Your task to perform on an android device: turn off notifications settings in the gmail app Image 0: 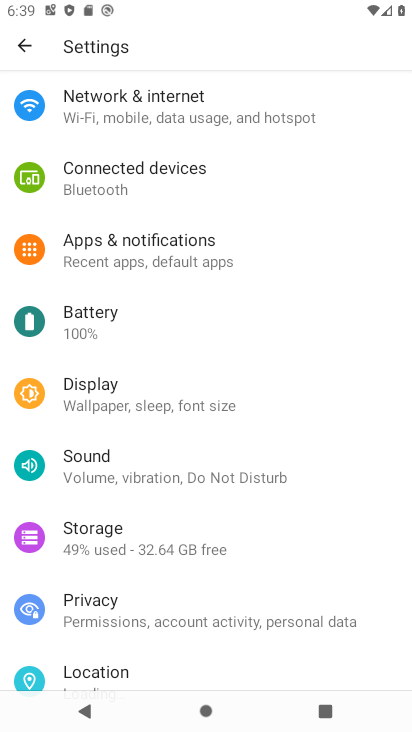
Step 0: press home button
Your task to perform on an android device: turn off notifications settings in the gmail app Image 1: 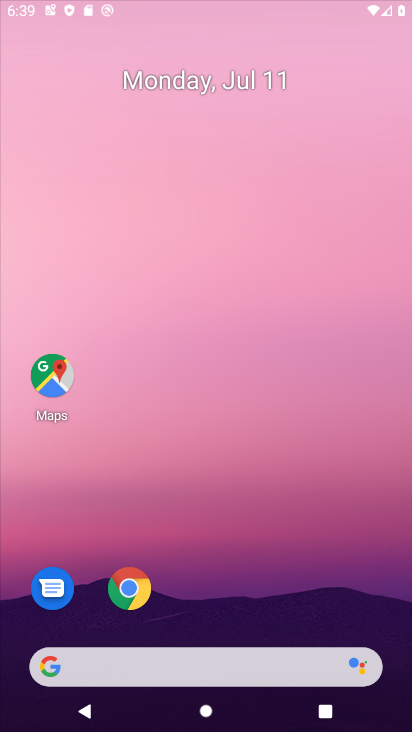
Step 1: drag from (334, 659) to (203, 37)
Your task to perform on an android device: turn off notifications settings in the gmail app Image 2: 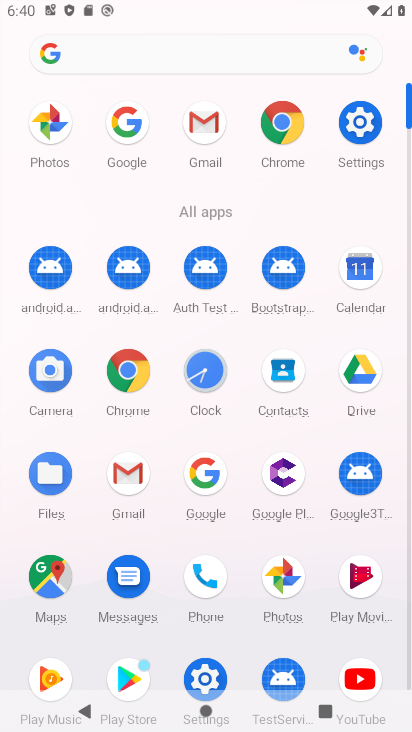
Step 2: click (123, 469)
Your task to perform on an android device: turn off notifications settings in the gmail app Image 3: 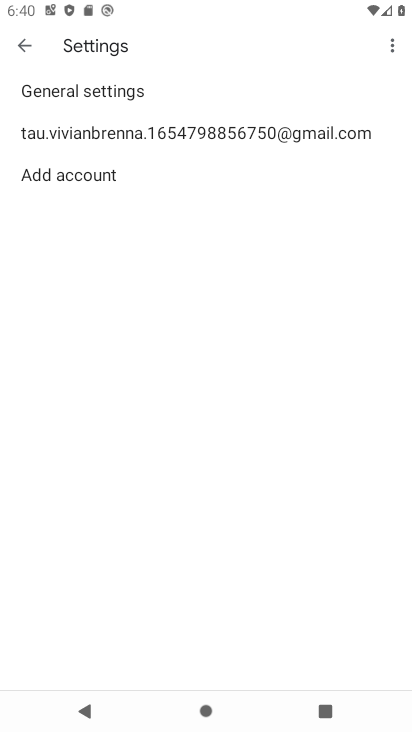
Step 3: press back button
Your task to perform on an android device: turn off notifications settings in the gmail app Image 4: 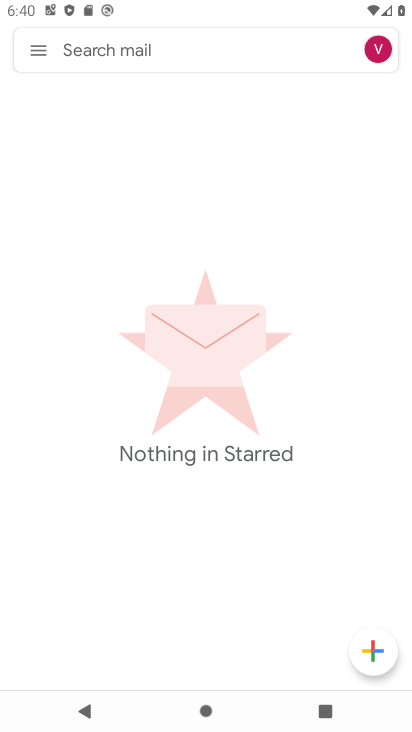
Step 4: click (45, 43)
Your task to perform on an android device: turn off notifications settings in the gmail app Image 5: 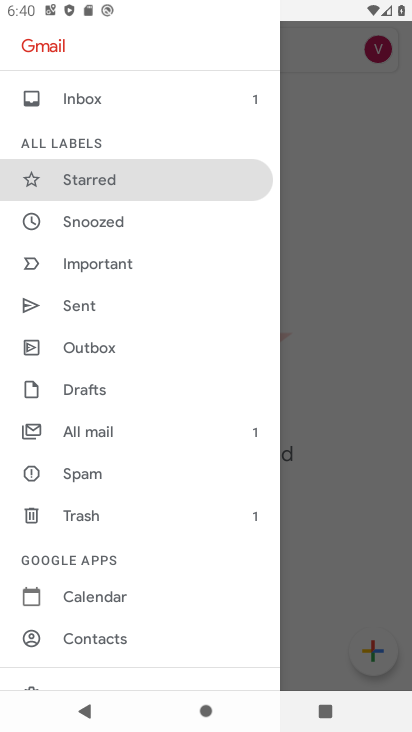
Step 5: drag from (83, 606) to (88, 63)
Your task to perform on an android device: turn off notifications settings in the gmail app Image 6: 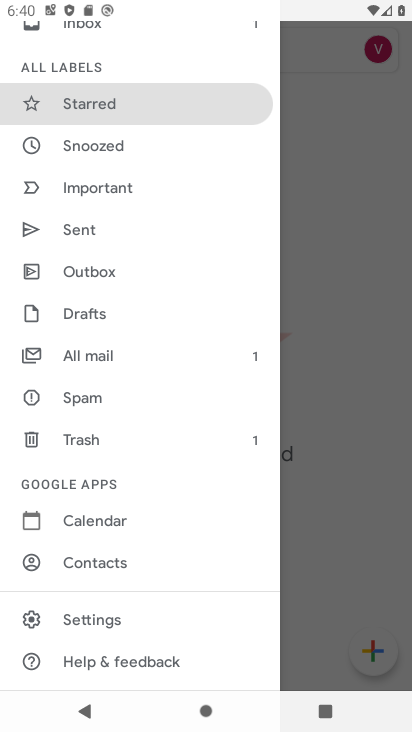
Step 6: click (95, 626)
Your task to perform on an android device: turn off notifications settings in the gmail app Image 7: 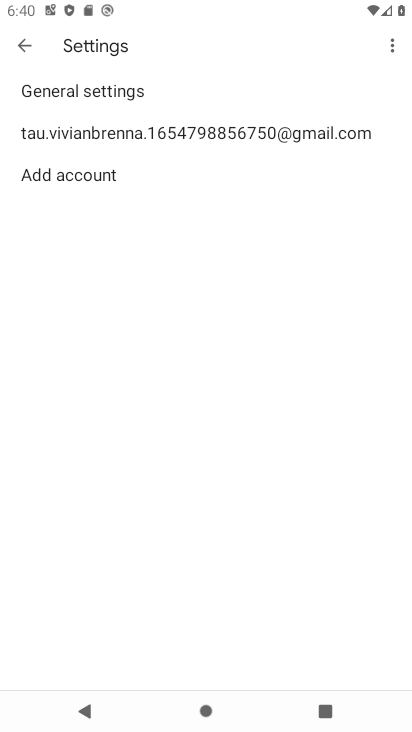
Step 7: click (118, 133)
Your task to perform on an android device: turn off notifications settings in the gmail app Image 8: 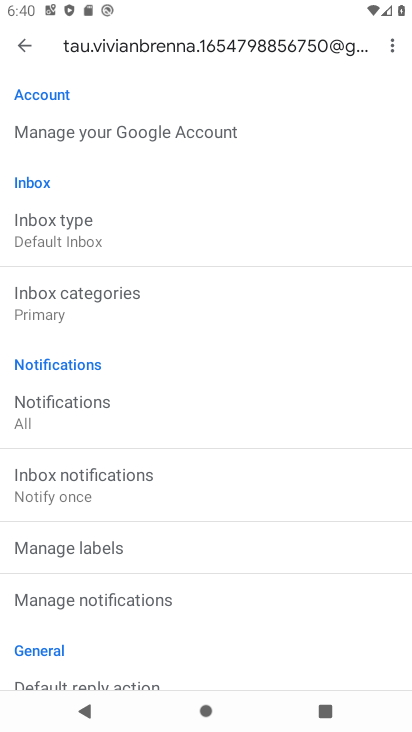
Step 8: click (50, 407)
Your task to perform on an android device: turn off notifications settings in the gmail app Image 9: 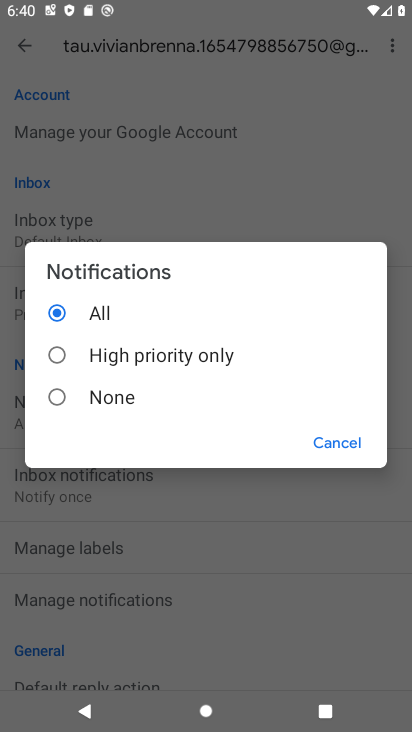
Step 9: click (53, 395)
Your task to perform on an android device: turn off notifications settings in the gmail app Image 10: 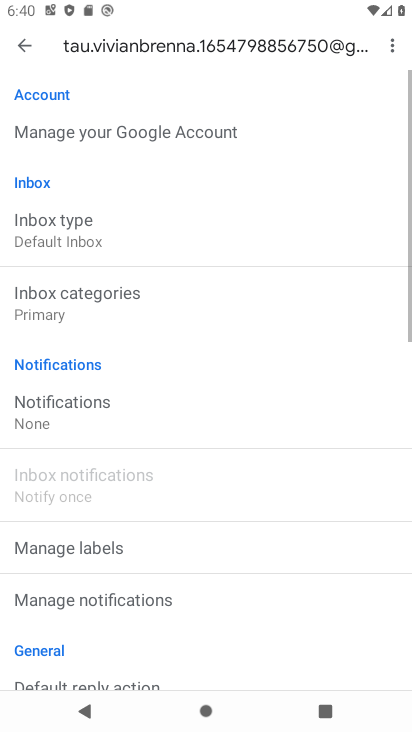
Step 10: task complete